Your task to perform on an android device: Open Amazon Image 0: 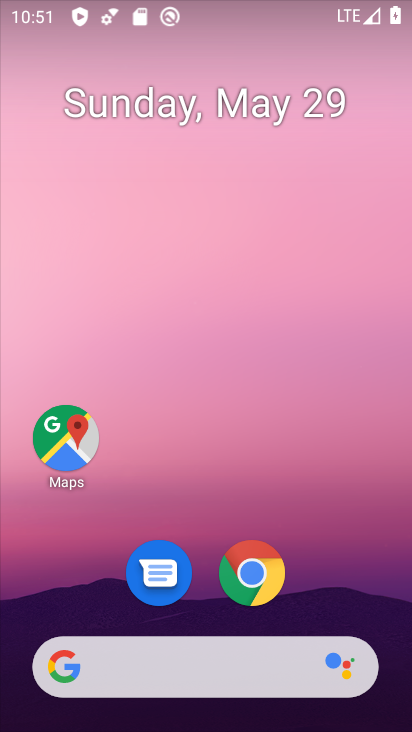
Step 0: click (272, 570)
Your task to perform on an android device: Open Amazon Image 1: 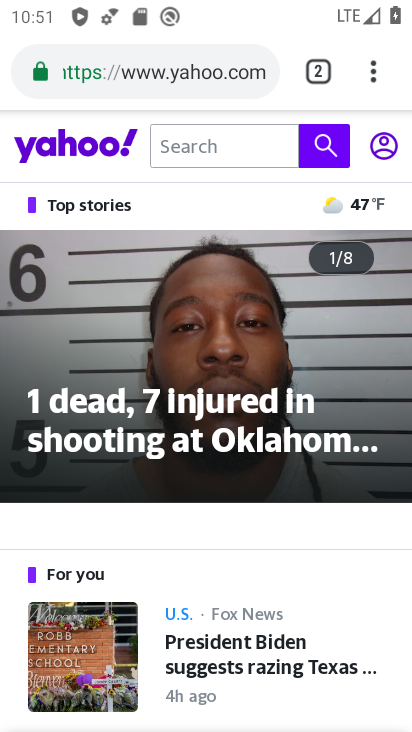
Step 1: click (329, 64)
Your task to perform on an android device: Open Amazon Image 2: 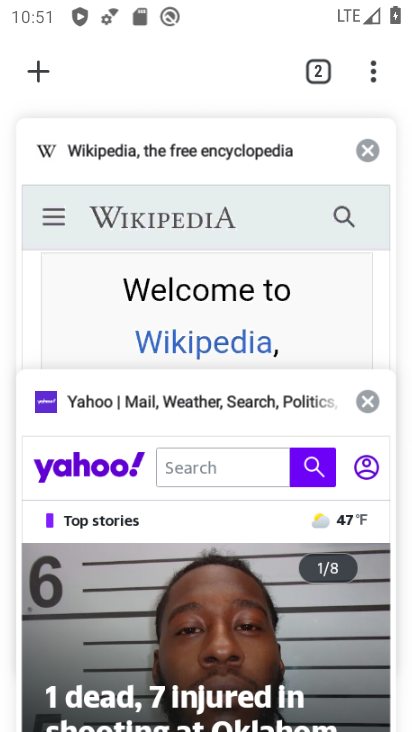
Step 2: click (38, 72)
Your task to perform on an android device: Open Amazon Image 3: 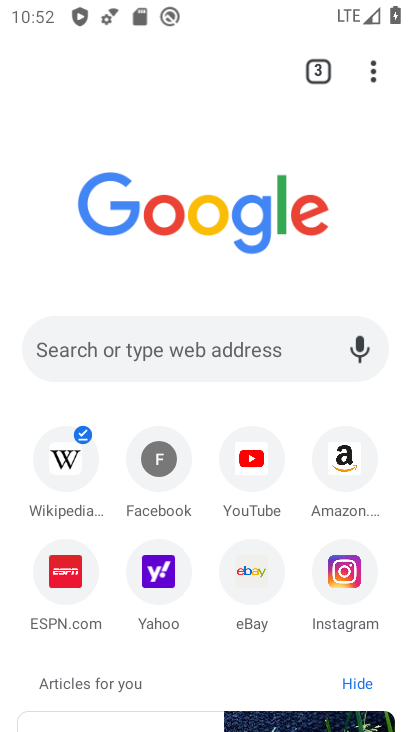
Step 3: click (344, 456)
Your task to perform on an android device: Open Amazon Image 4: 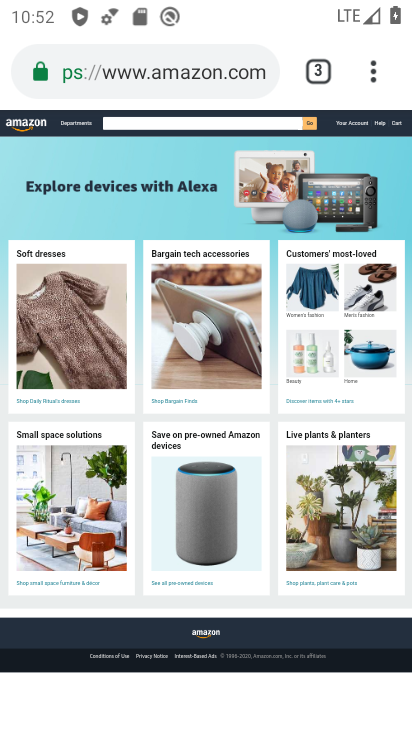
Step 4: task complete